Your task to perform on an android device: Open maps Image 0: 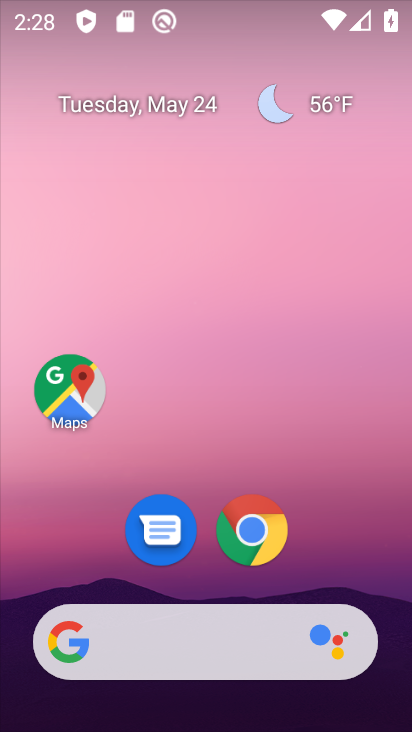
Step 0: click (70, 382)
Your task to perform on an android device: Open maps Image 1: 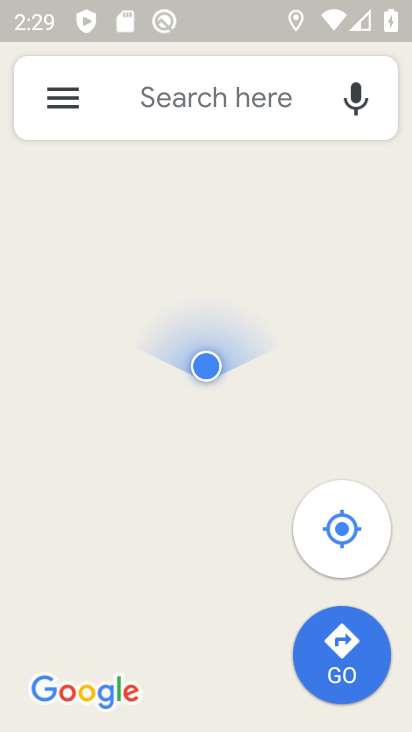
Step 1: task complete